Your task to perform on an android device: When is my next appointment? Image 0: 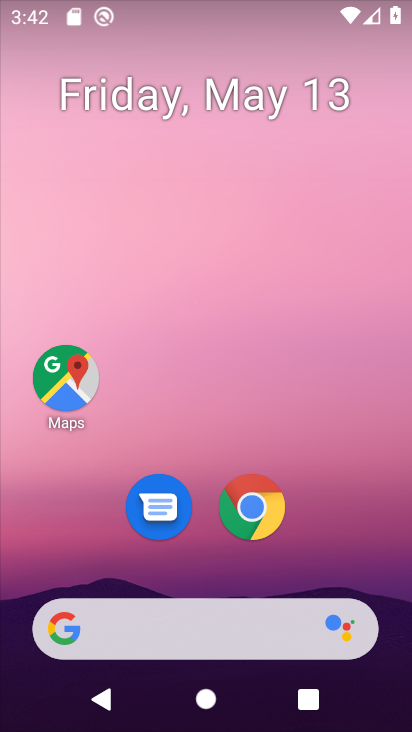
Step 0: drag from (335, 555) to (348, 116)
Your task to perform on an android device: When is my next appointment? Image 1: 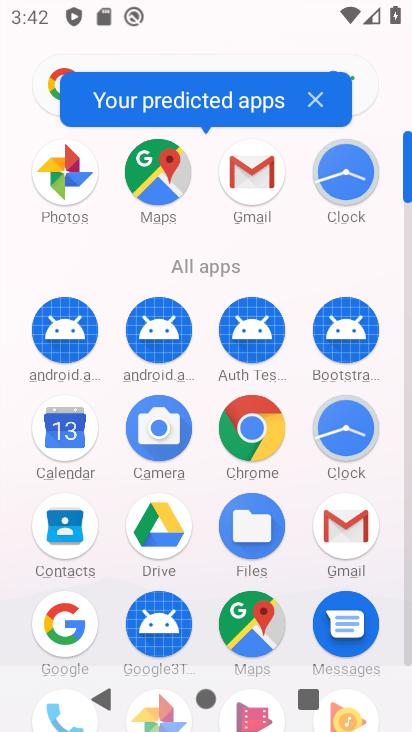
Step 1: click (69, 438)
Your task to perform on an android device: When is my next appointment? Image 2: 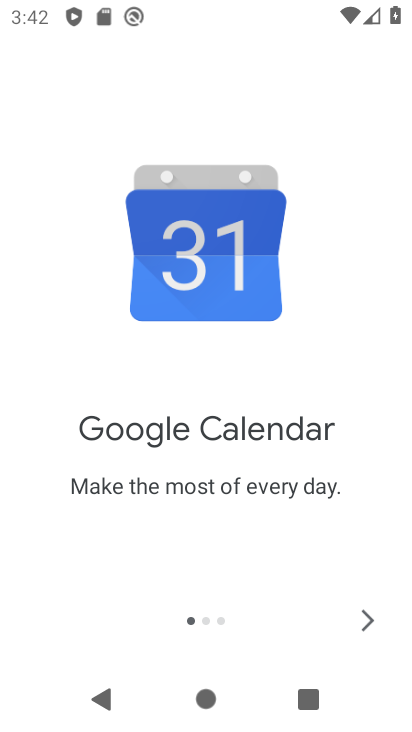
Step 2: click (356, 617)
Your task to perform on an android device: When is my next appointment? Image 3: 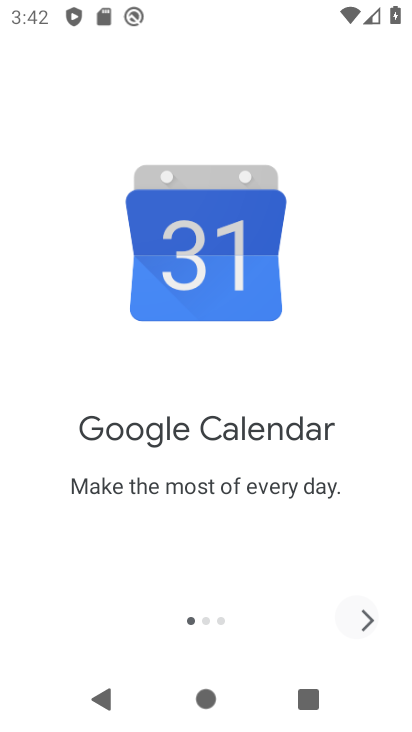
Step 3: click (356, 617)
Your task to perform on an android device: When is my next appointment? Image 4: 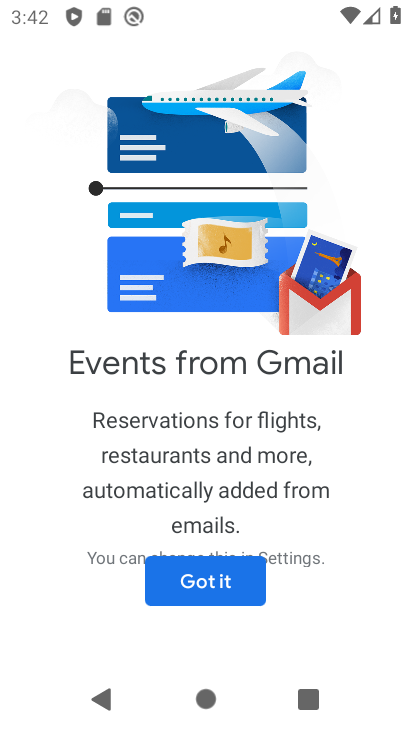
Step 4: click (175, 591)
Your task to perform on an android device: When is my next appointment? Image 5: 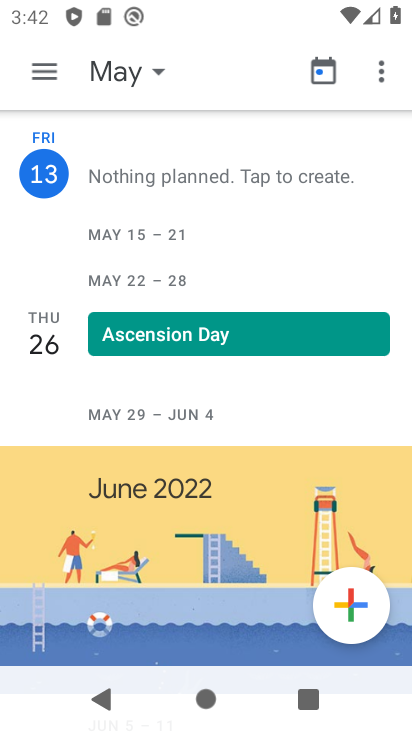
Step 5: click (102, 65)
Your task to perform on an android device: When is my next appointment? Image 6: 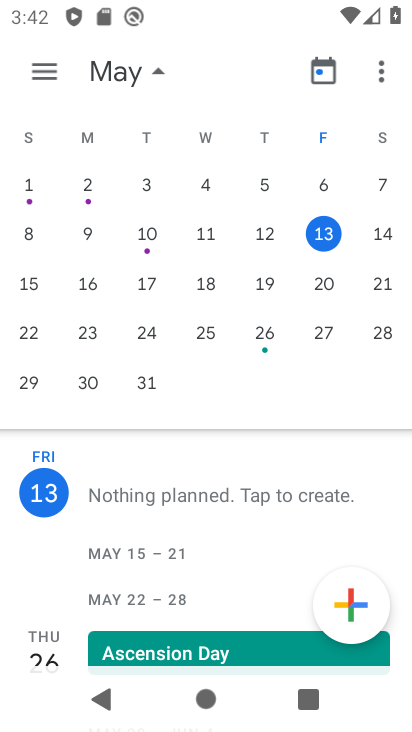
Step 6: click (314, 231)
Your task to perform on an android device: When is my next appointment? Image 7: 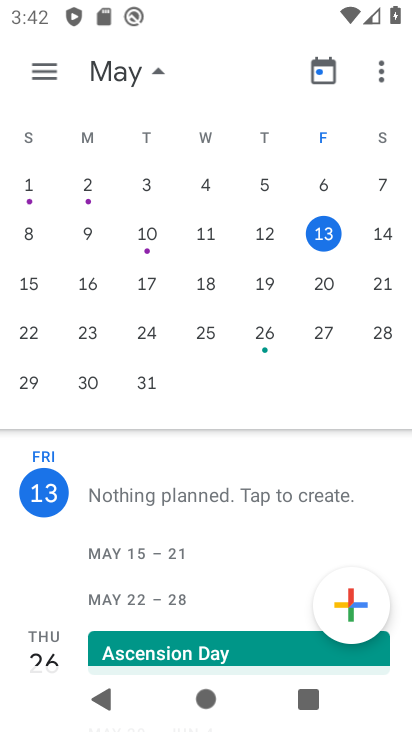
Step 7: click (314, 230)
Your task to perform on an android device: When is my next appointment? Image 8: 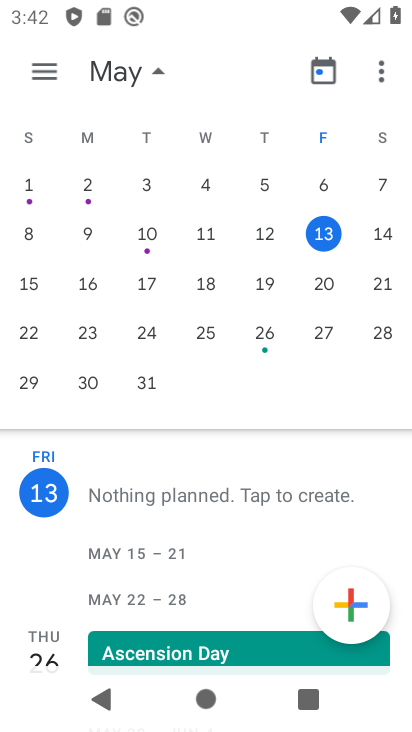
Step 8: task complete